Your task to perform on an android device: delete a single message in the gmail app Image 0: 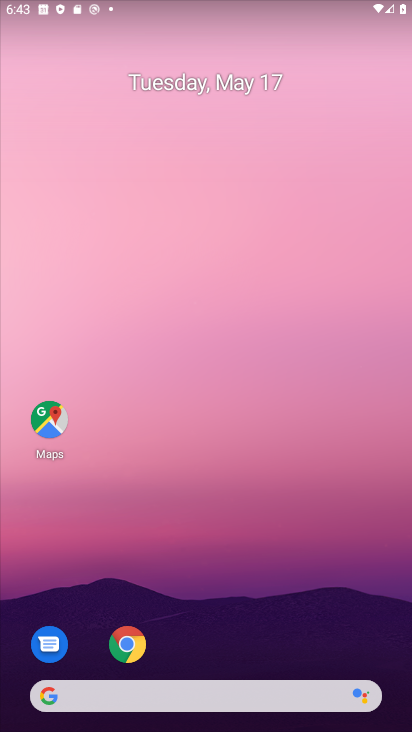
Step 0: drag from (368, 653) to (272, 8)
Your task to perform on an android device: delete a single message in the gmail app Image 1: 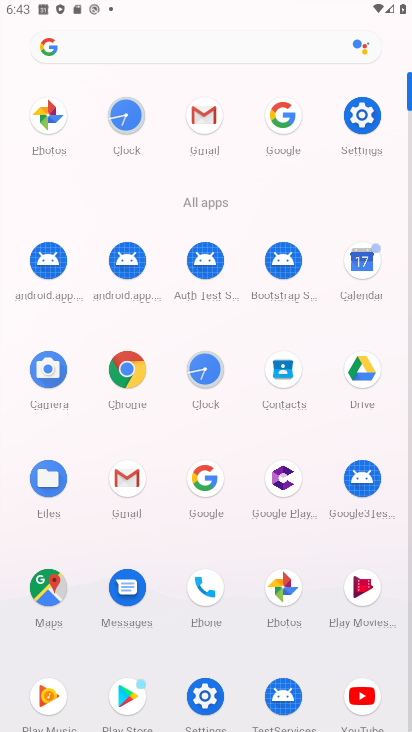
Step 1: click (130, 494)
Your task to perform on an android device: delete a single message in the gmail app Image 2: 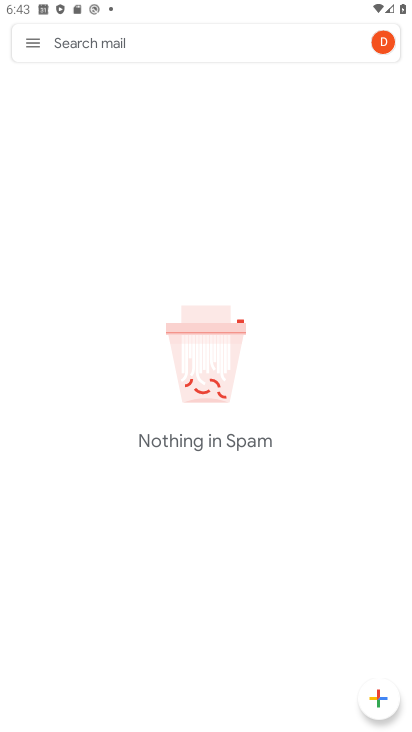
Step 2: press back button
Your task to perform on an android device: delete a single message in the gmail app Image 3: 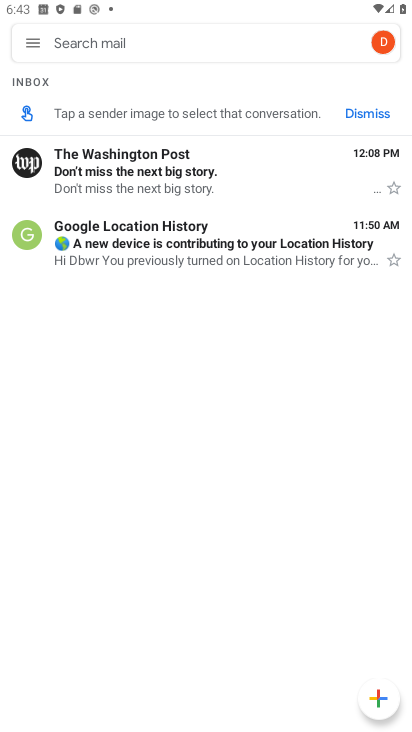
Step 3: click (124, 163)
Your task to perform on an android device: delete a single message in the gmail app Image 4: 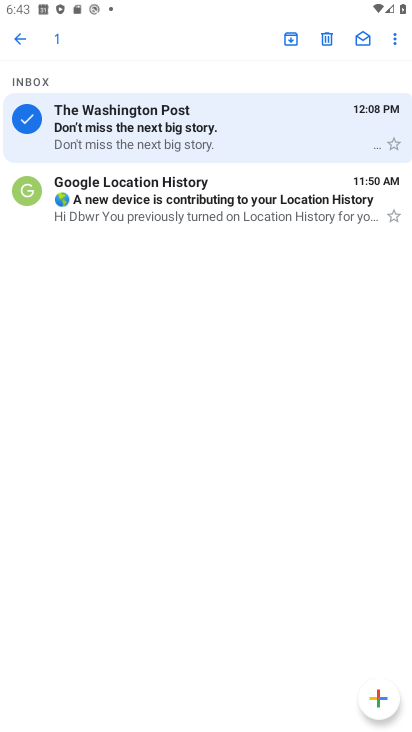
Step 4: click (323, 30)
Your task to perform on an android device: delete a single message in the gmail app Image 5: 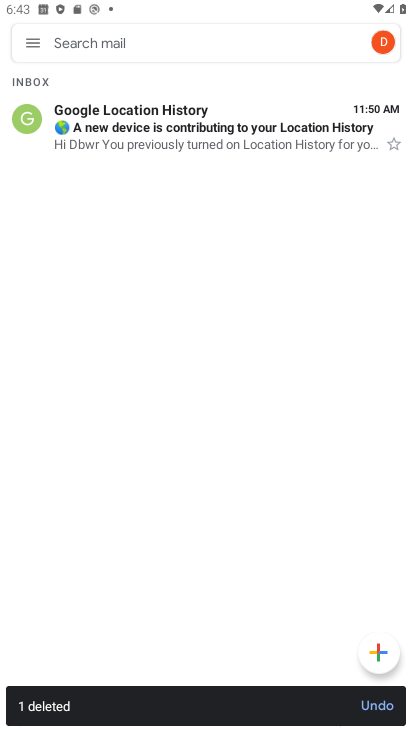
Step 5: task complete